Your task to perform on an android device: Open the calendar and show me this week's events? Image 0: 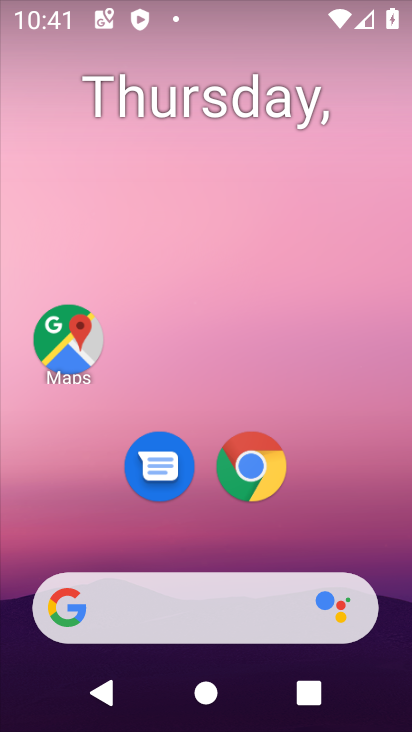
Step 0: drag from (211, 431) to (185, 96)
Your task to perform on an android device: Open the calendar and show me this week's events? Image 1: 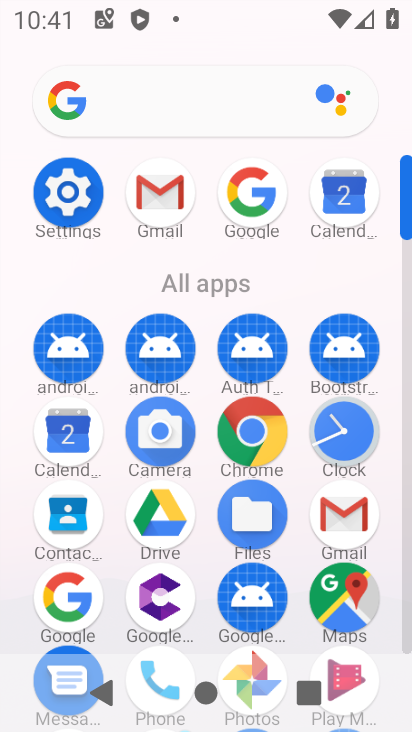
Step 1: click (339, 187)
Your task to perform on an android device: Open the calendar and show me this week's events? Image 2: 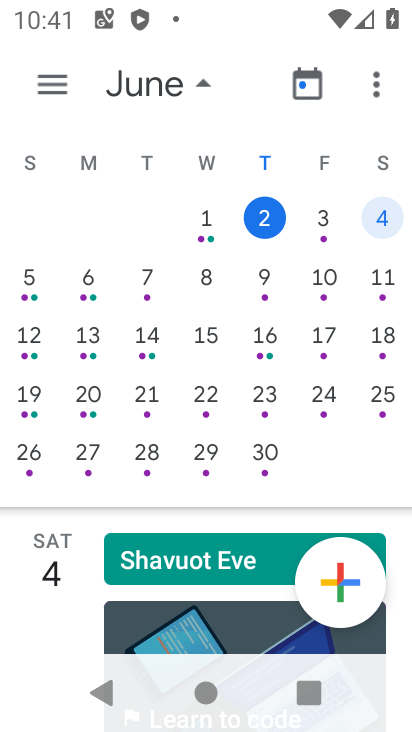
Step 2: click (382, 220)
Your task to perform on an android device: Open the calendar and show me this week's events? Image 3: 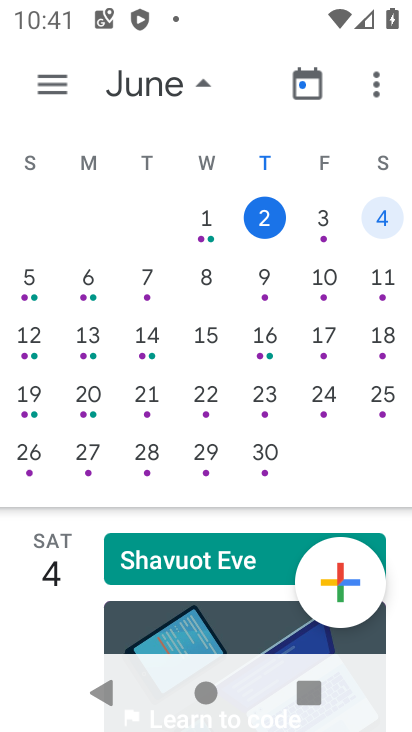
Step 3: task complete